Your task to perform on an android device: Show me popular games on the Play Store Image 0: 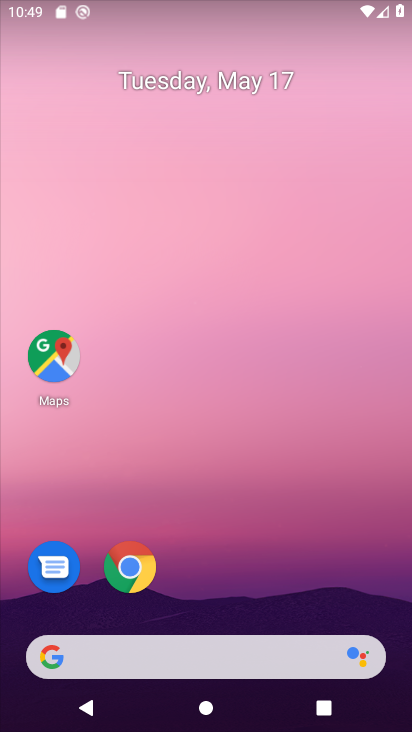
Step 0: drag from (204, 477) to (225, 227)
Your task to perform on an android device: Show me popular games on the Play Store Image 1: 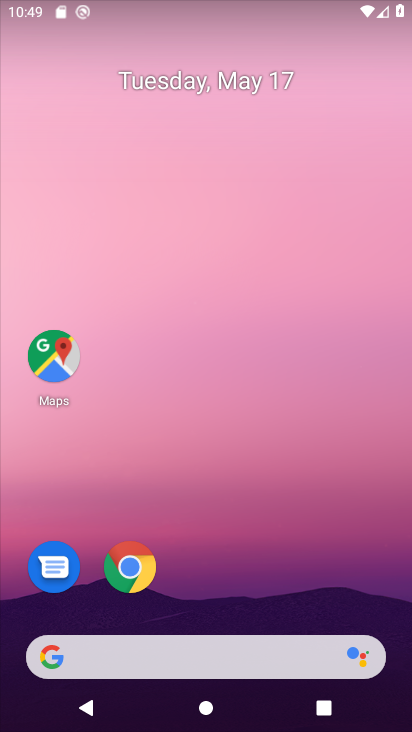
Step 1: drag from (250, 488) to (309, 74)
Your task to perform on an android device: Show me popular games on the Play Store Image 2: 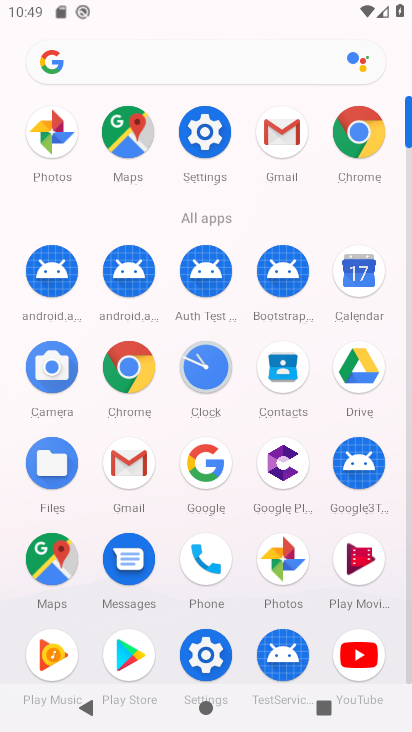
Step 2: click (124, 663)
Your task to perform on an android device: Show me popular games on the Play Store Image 3: 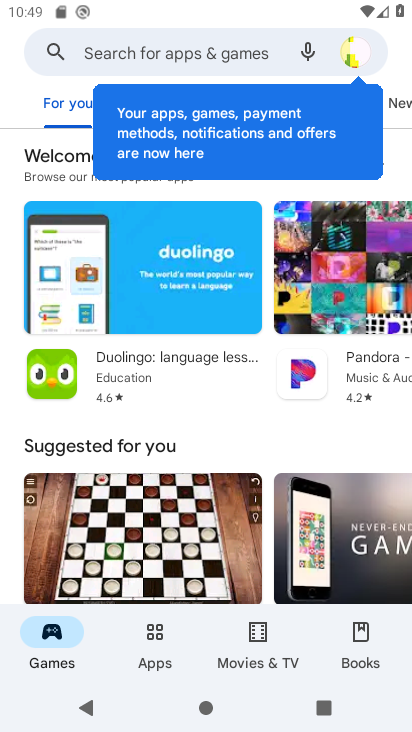
Step 3: click (61, 647)
Your task to perform on an android device: Show me popular games on the Play Store Image 4: 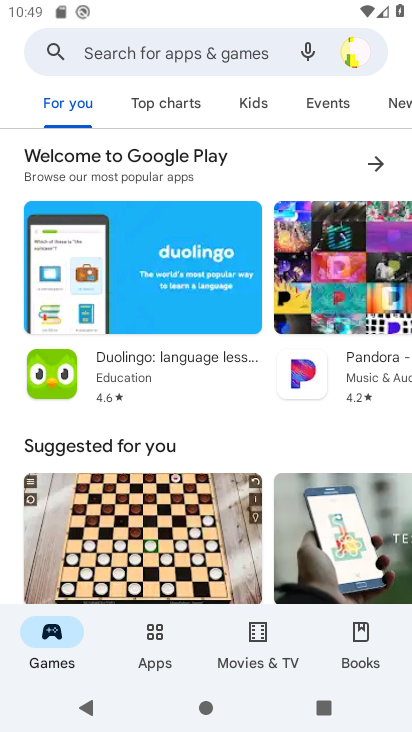
Step 4: drag from (195, 505) to (306, 78)
Your task to perform on an android device: Show me popular games on the Play Store Image 5: 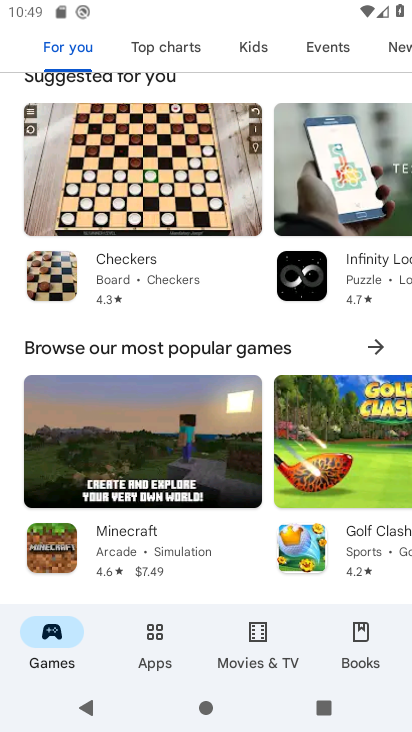
Step 5: click (366, 343)
Your task to perform on an android device: Show me popular games on the Play Store Image 6: 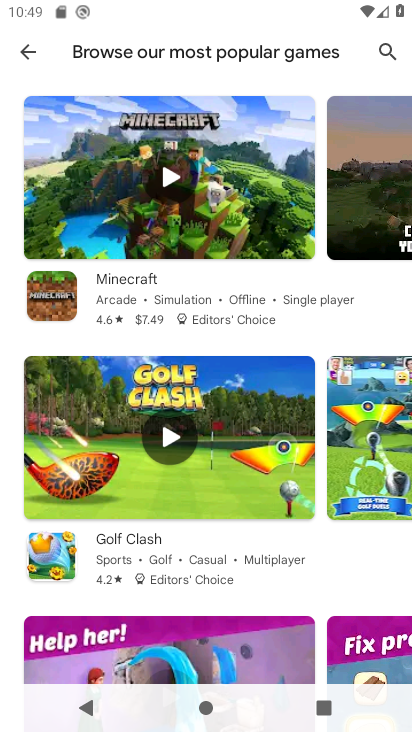
Step 6: task complete